Your task to perform on an android device: Open internet settings Image 0: 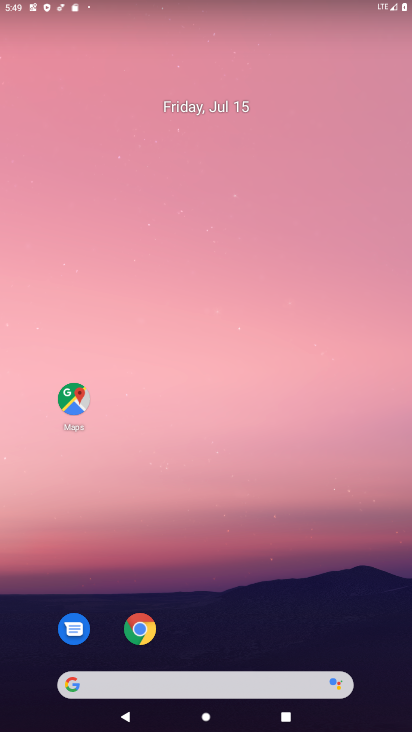
Step 0: press home button
Your task to perform on an android device: Open internet settings Image 1: 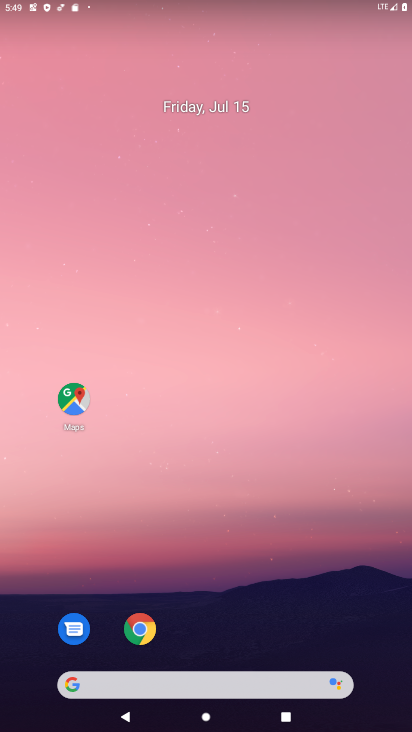
Step 1: drag from (270, 608) to (345, 3)
Your task to perform on an android device: Open internet settings Image 2: 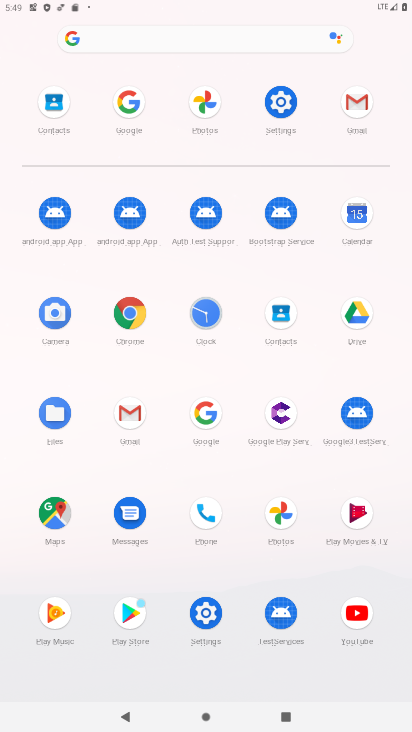
Step 2: click (282, 137)
Your task to perform on an android device: Open internet settings Image 3: 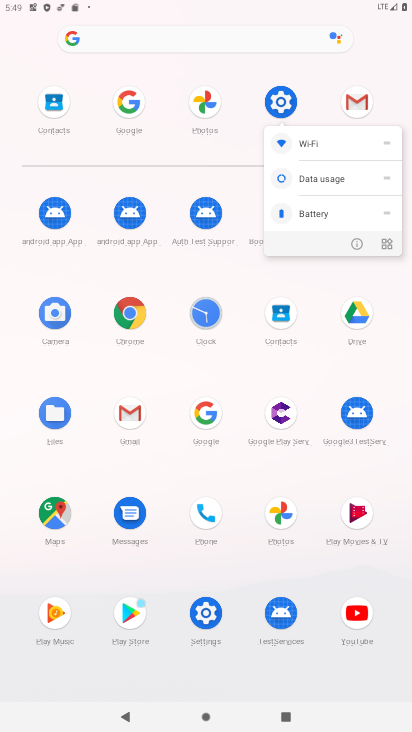
Step 3: click (284, 104)
Your task to perform on an android device: Open internet settings Image 4: 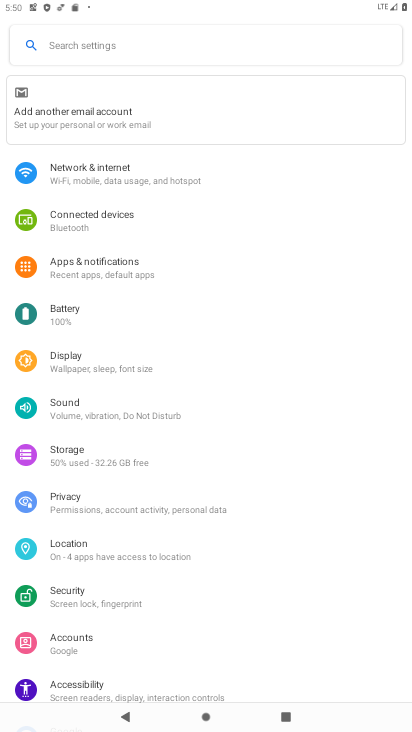
Step 4: click (92, 177)
Your task to perform on an android device: Open internet settings Image 5: 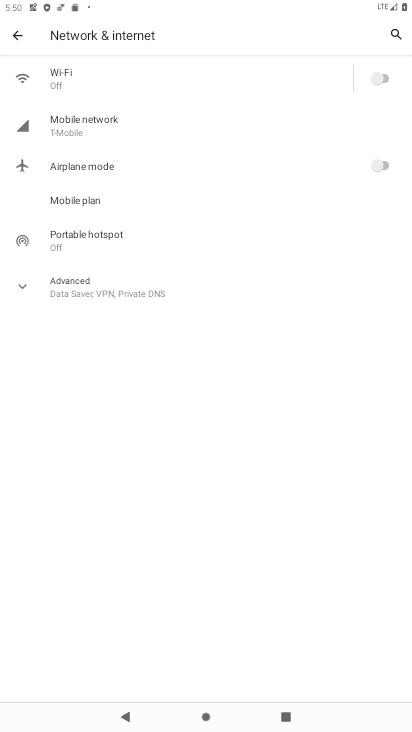
Step 5: task complete